Your task to perform on an android device: Show me popular games on the Play Store Image 0: 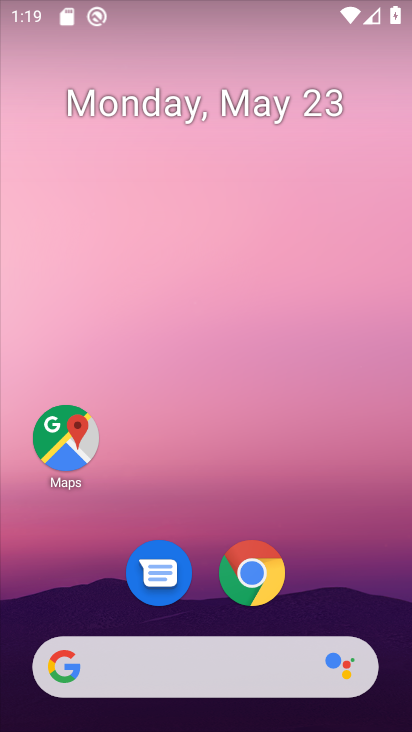
Step 0: drag from (339, 585) to (294, 264)
Your task to perform on an android device: Show me popular games on the Play Store Image 1: 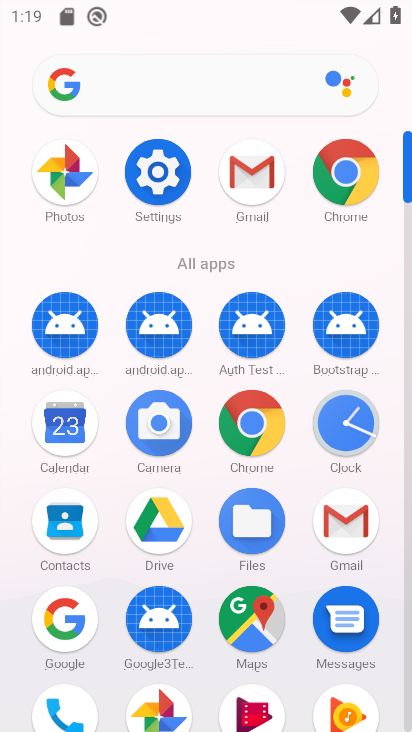
Step 1: drag from (307, 661) to (293, 387)
Your task to perform on an android device: Show me popular games on the Play Store Image 2: 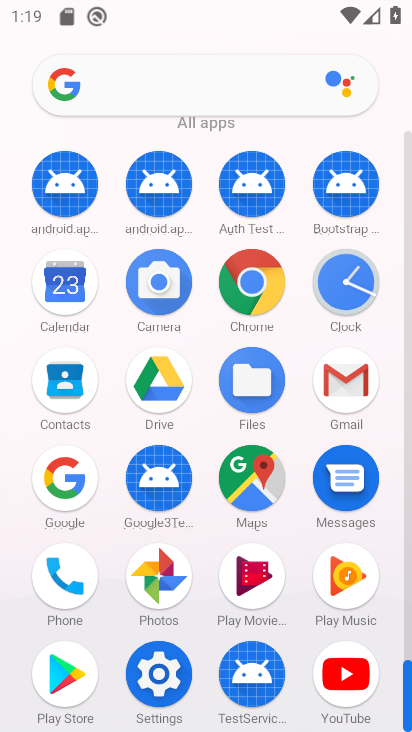
Step 2: click (65, 673)
Your task to perform on an android device: Show me popular games on the Play Store Image 3: 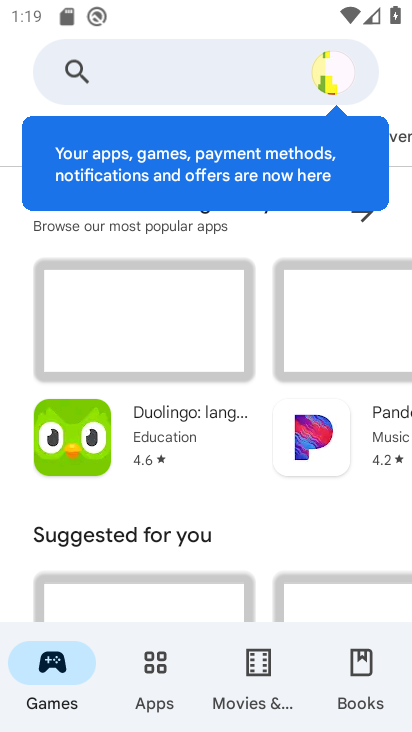
Step 3: click (76, 68)
Your task to perform on an android device: Show me popular games on the Play Store Image 4: 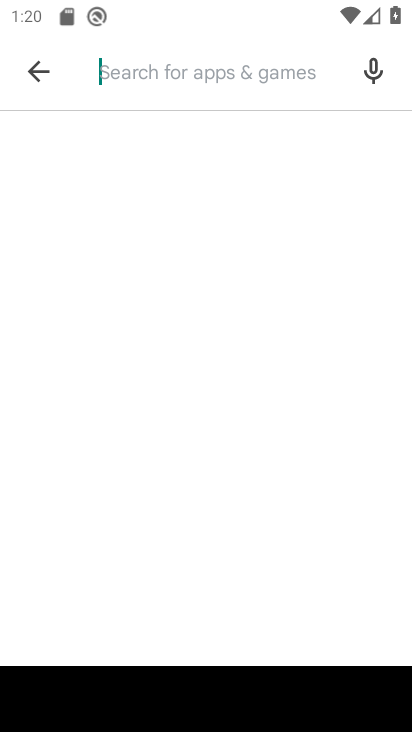
Step 4: type "popular games"
Your task to perform on an android device: Show me popular games on the Play Store Image 5: 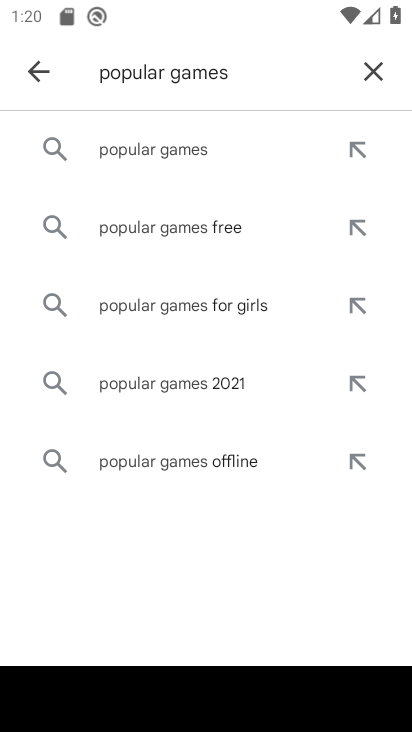
Step 5: click (205, 157)
Your task to perform on an android device: Show me popular games on the Play Store Image 6: 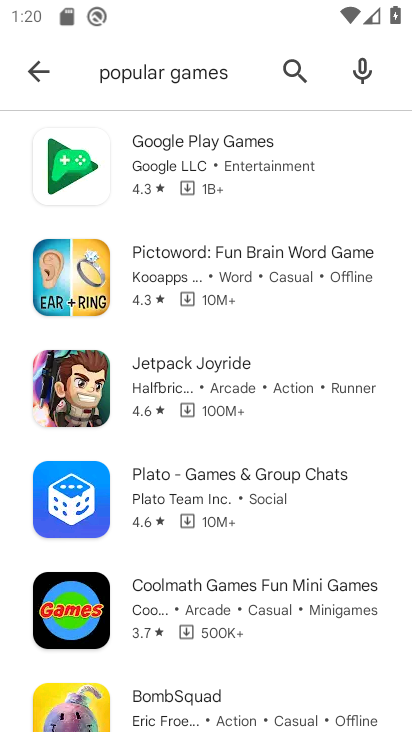
Step 6: task complete